Your task to perform on an android device: empty trash in google photos Image 0: 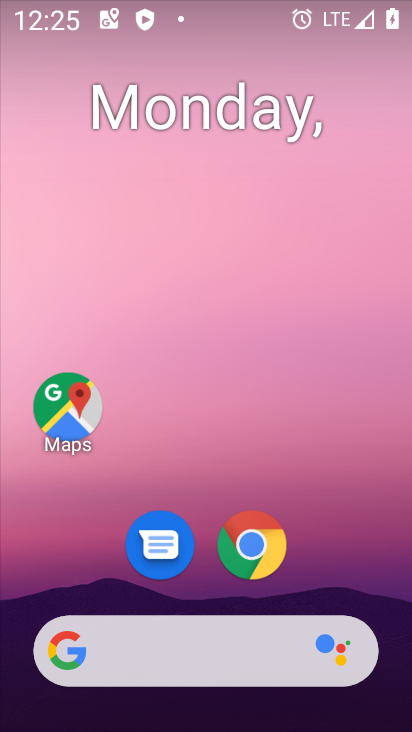
Step 0: drag from (381, 587) to (393, 264)
Your task to perform on an android device: empty trash in google photos Image 1: 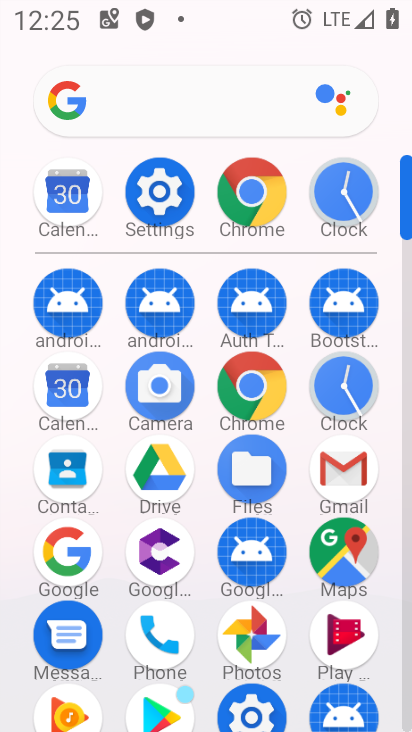
Step 1: click (260, 647)
Your task to perform on an android device: empty trash in google photos Image 2: 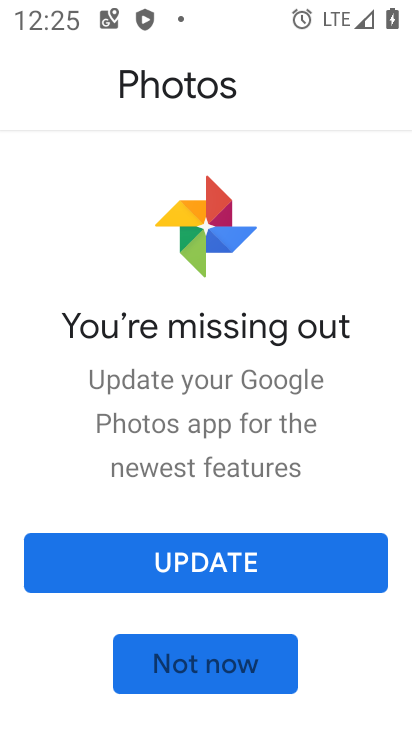
Step 2: click (287, 567)
Your task to perform on an android device: empty trash in google photos Image 3: 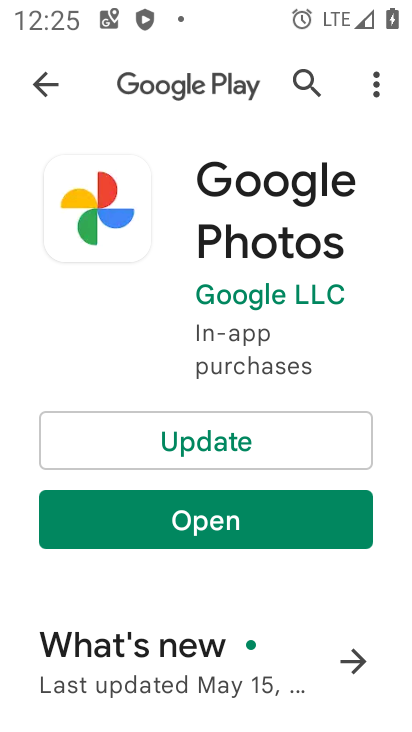
Step 3: click (230, 448)
Your task to perform on an android device: empty trash in google photos Image 4: 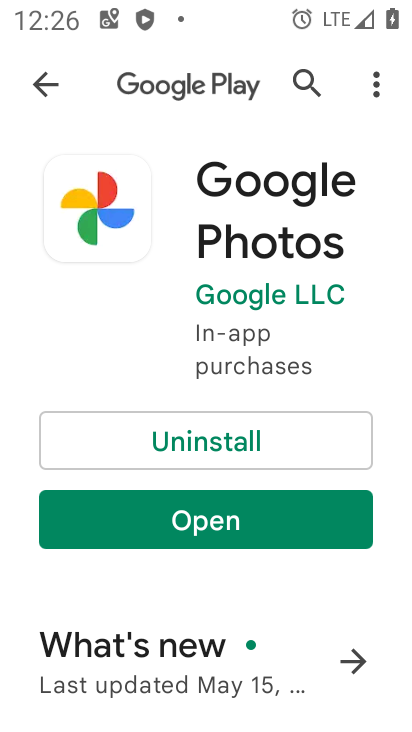
Step 4: click (236, 536)
Your task to perform on an android device: empty trash in google photos Image 5: 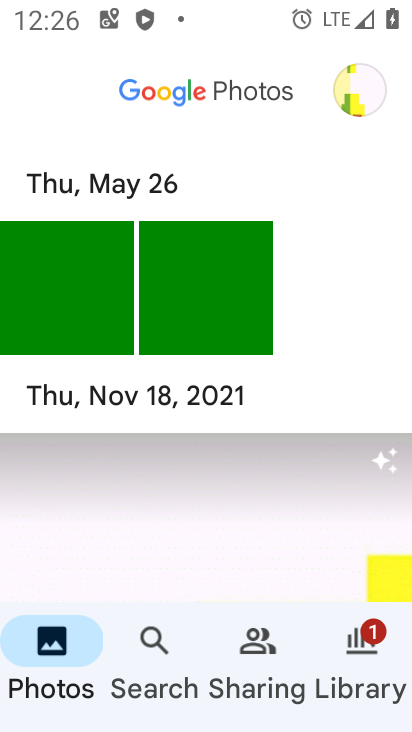
Step 5: click (370, 645)
Your task to perform on an android device: empty trash in google photos Image 6: 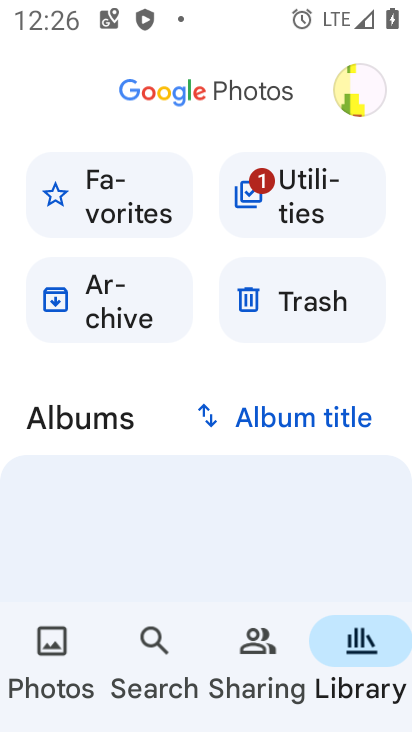
Step 6: click (297, 315)
Your task to perform on an android device: empty trash in google photos Image 7: 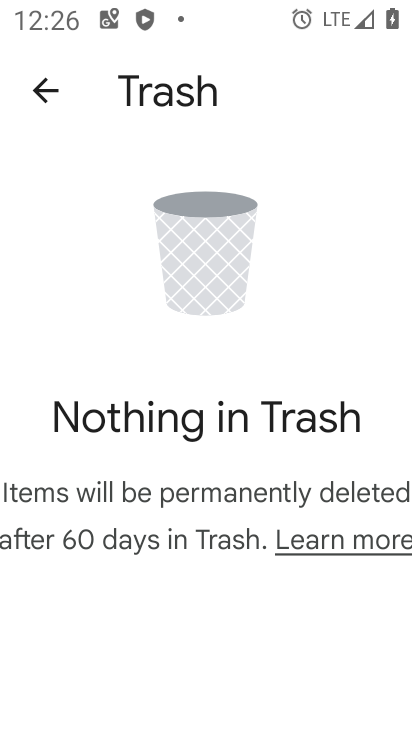
Step 7: task complete